Your task to perform on an android device: open device folders in google photos Image 0: 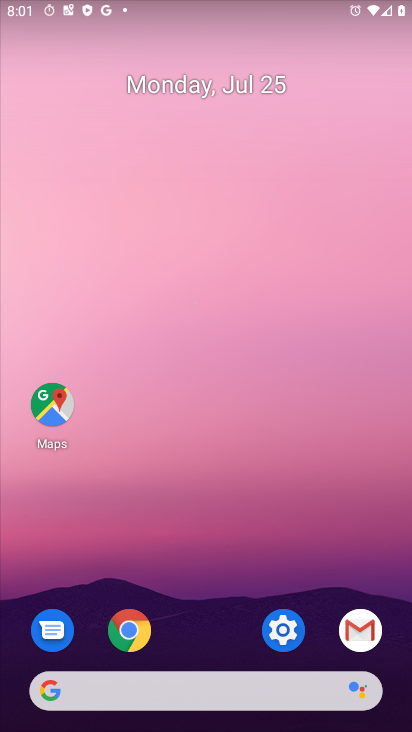
Step 0: drag from (279, 709) to (229, 251)
Your task to perform on an android device: open device folders in google photos Image 1: 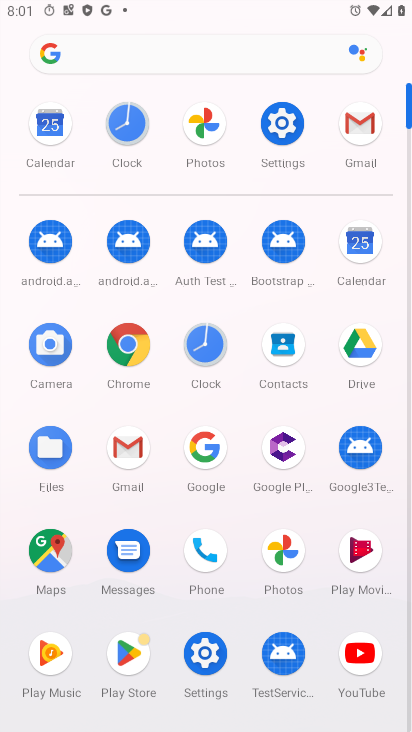
Step 1: click (290, 555)
Your task to perform on an android device: open device folders in google photos Image 2: 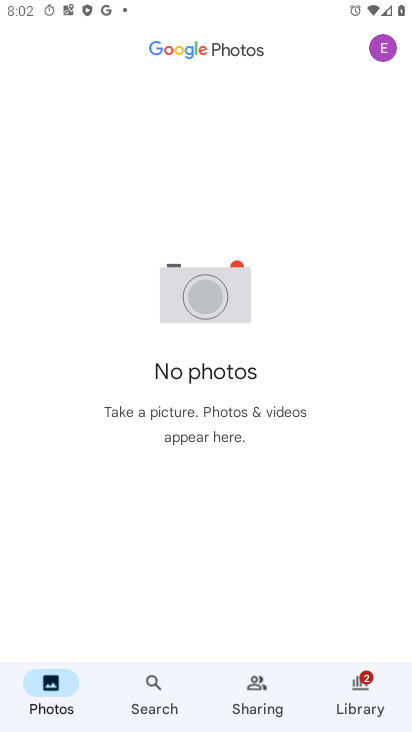
Step 2: click (142, 688)
Your task to perform on an android device: open device folders in google photos Image 3: 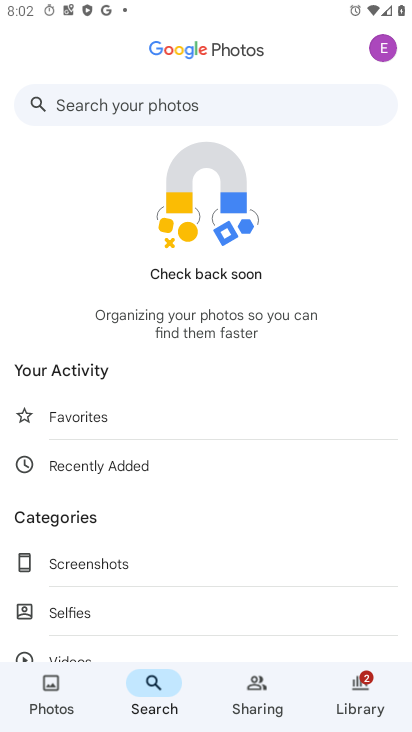
Step 3: click (161, 105)
Your task to perform on an android device: open device folders in google photos Image 4: 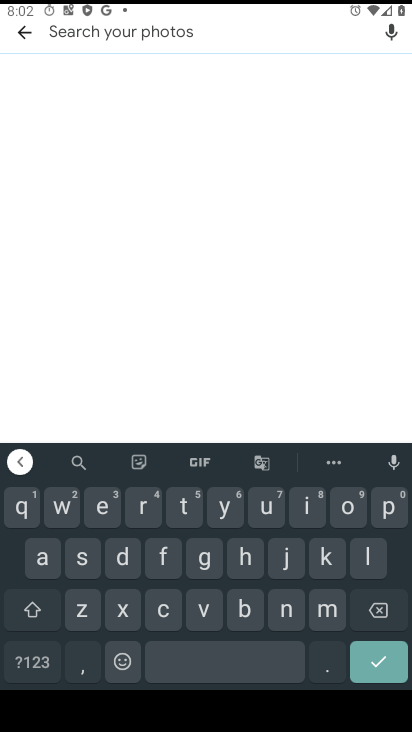
Step 4: click (121, 563)
Your task to perform on an android device: open device folders in google photos Image 5: 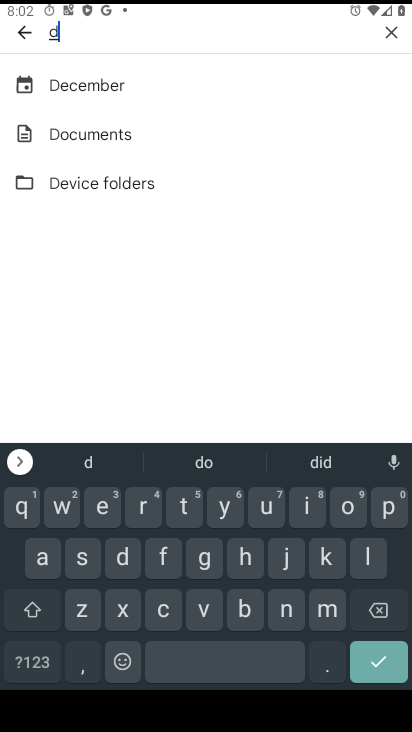
Step 5: click (99, 175)
Your task to perform on an android device: open device folders in google photos Image 6: 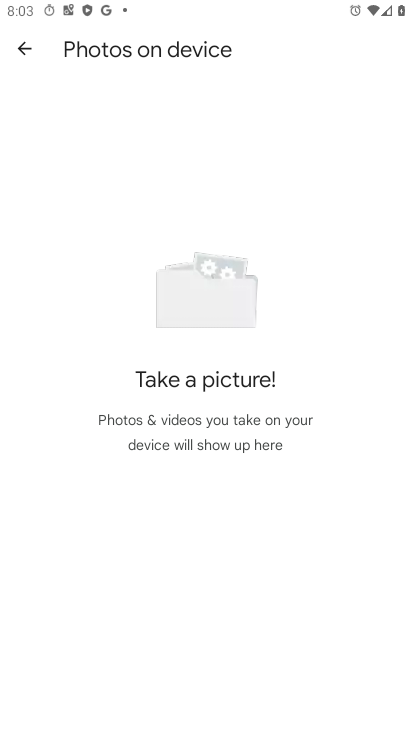
Step 6: task complete